Your task to perform on an android device: Search for dining sets on article.com Image 0: 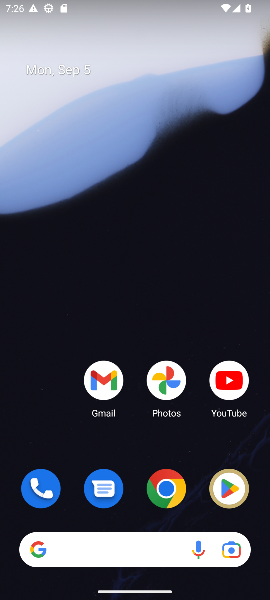
Step 0: click (178, 486)
Your task to perform on an android device: Search for dining sets on article.com Image 1: 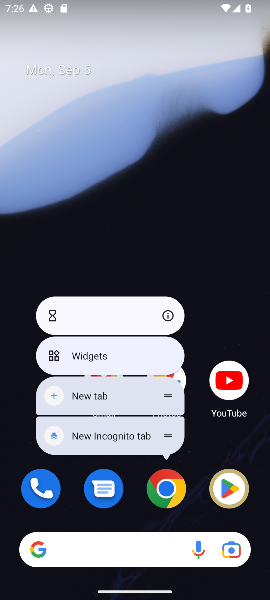
Step 1: click (180, 493)
Your task to perform on an android device: Search for dining sets on article.com Image 2: 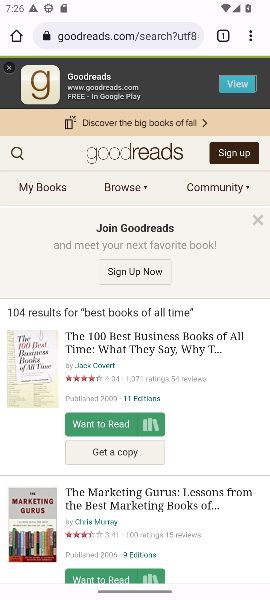
Step 2: click (155, 32)
Your task to perform on an android device: Search for dining sets on article.com Image 3: 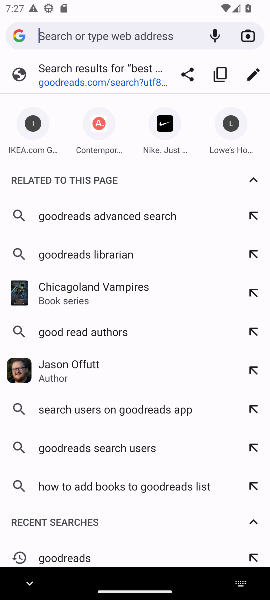
Step 3: type "article.com"
Your task to perform on an android device: Search for dining sets on article.com Image 4: 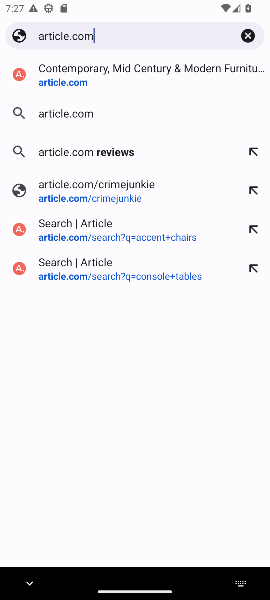
Step 4: press enter
Your task to perform on an android device: Search for dining sets on article.com Image 5: 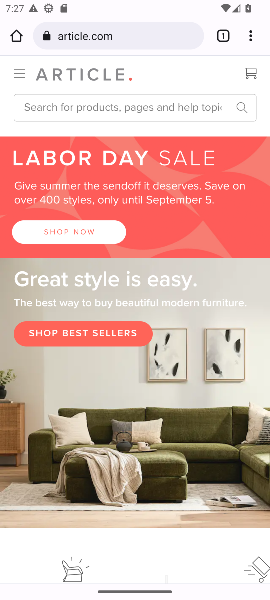
Step 5: click (123, 106)
Your task to perform on an android device: Search for dining sets on article.com Image 6: 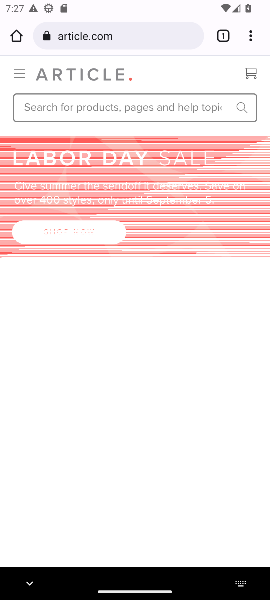
Step 6: type "dininh"
Your task to perform on an android device: Search for dining sets on article.com Image 7: 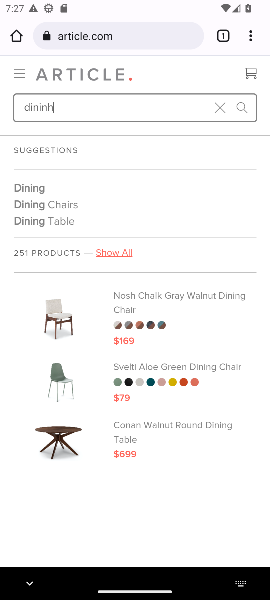
Step 7: type "dining sets"
Your task to perform on an android device: Search for dining sets on article.com Image 8: 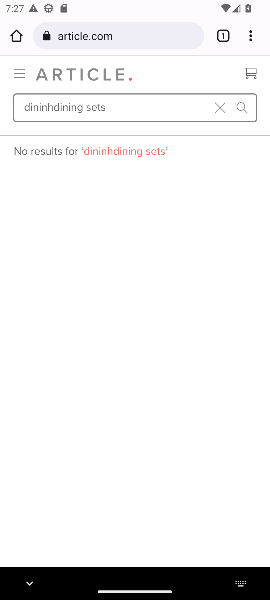
Step 8: click (219, 109)
Your task to perform on an android device: Search for dining sets on article.com Image 9: 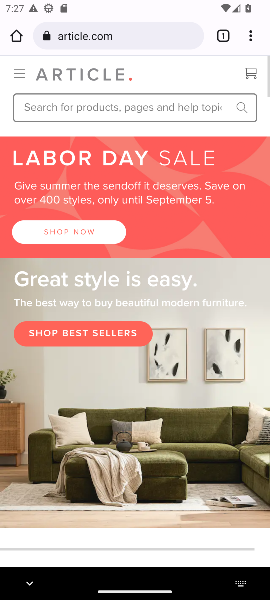
Step 9: click (133, 113)
Your task to perform on an android device: Search for dining sets on article.com Image 10: 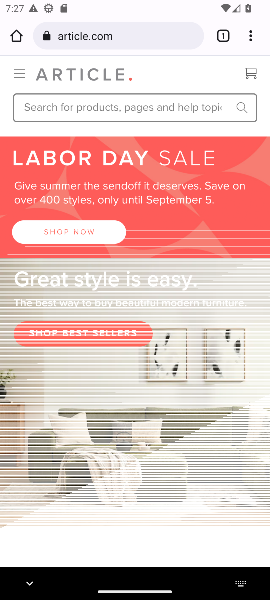
Step 10: type "dining sets"
Your task to perform on an android device: Search for dining sets on article.com Image 11: 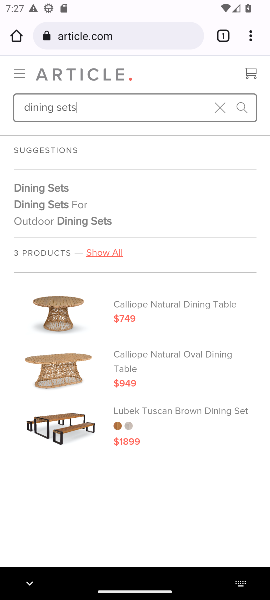
Step 11: press enter
Your task to perform on an android device: Search for dining sets on article.com Image 12: 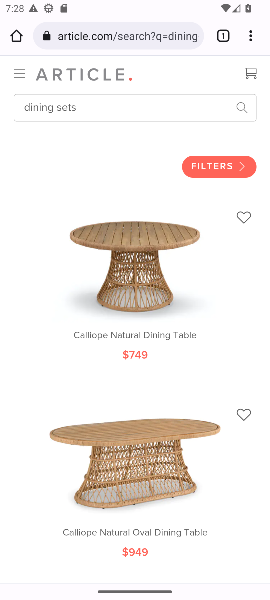
Step 12: task complete